Your task to perform on an android device: toggle airplane mode Image 0: 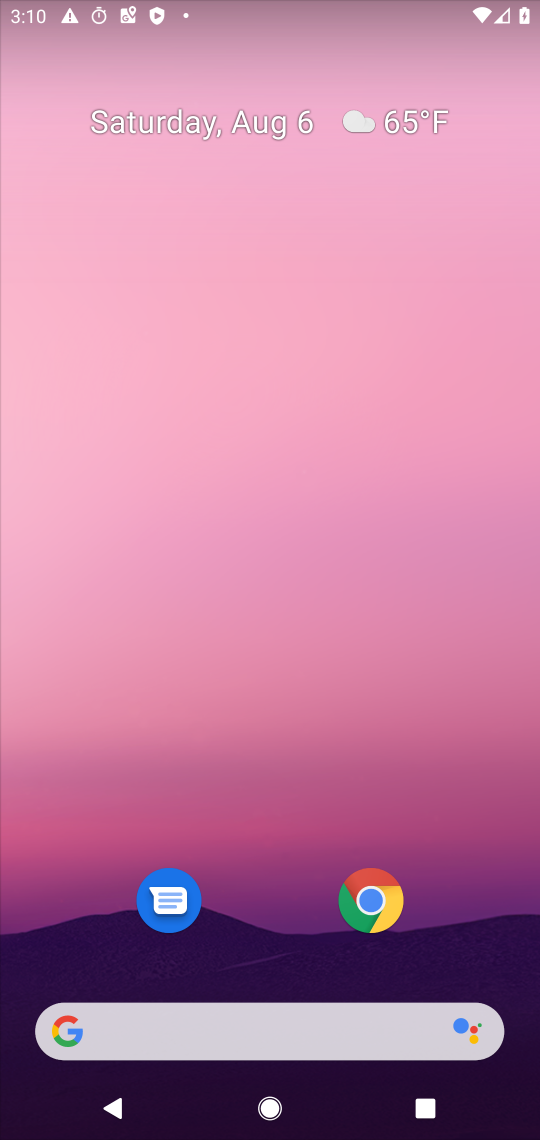
Step 0: press home button
Your task to perform on an android device: toggle airplane mode Image 1: 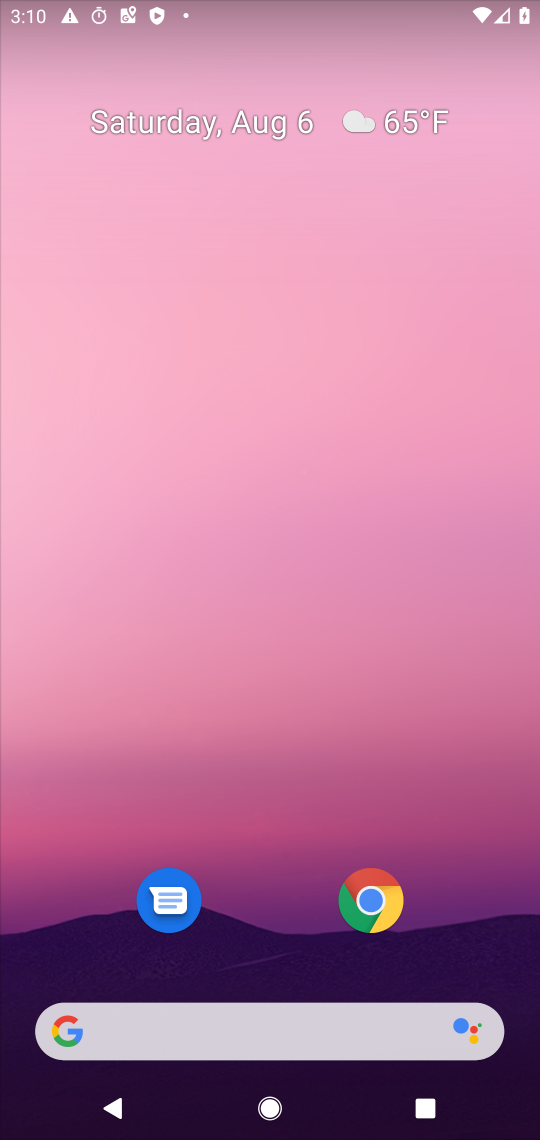
Step 1: drag from (249, 903) to (230, 300)
Your task to perform on an android device: toggle airplane mode Image 2: 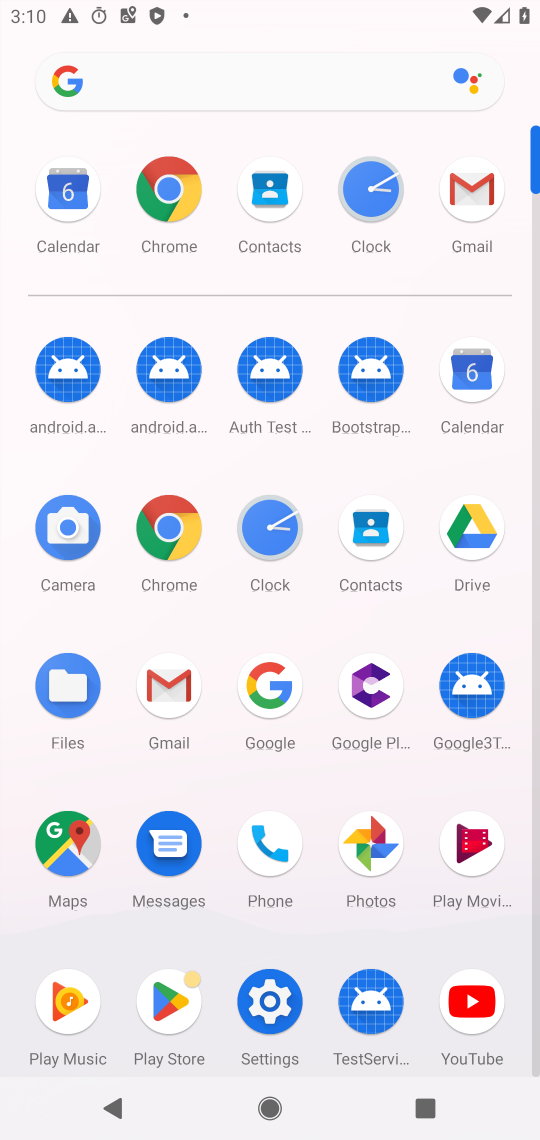
Step 2: click (264, 1009)
Your task to perform on an android device: toggle airplane mode Image 3: 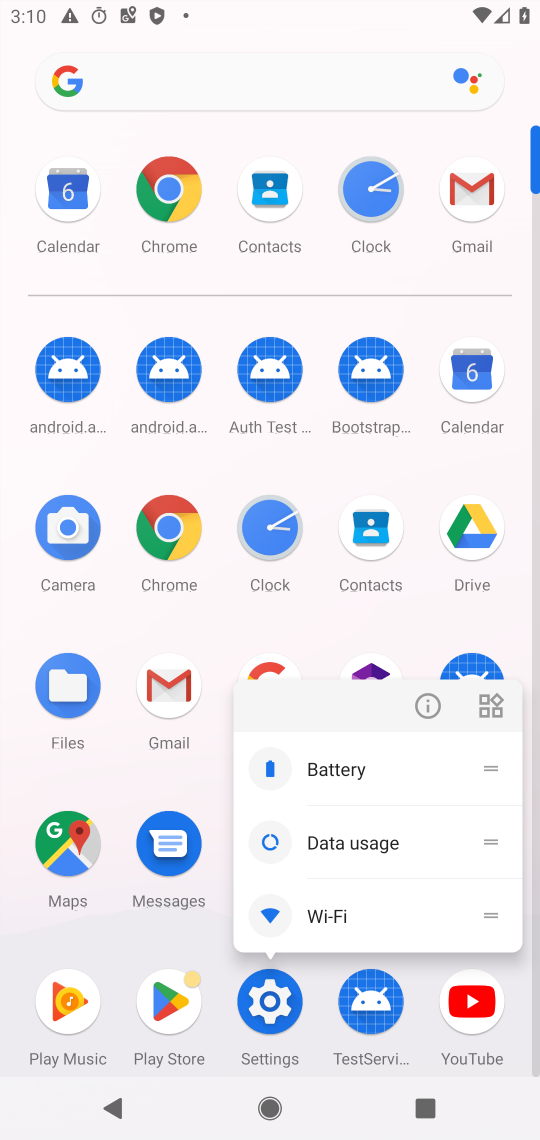
Step 3: click (274, 997)
Your task to perform on an android device: toggle airplane mode Image 4: 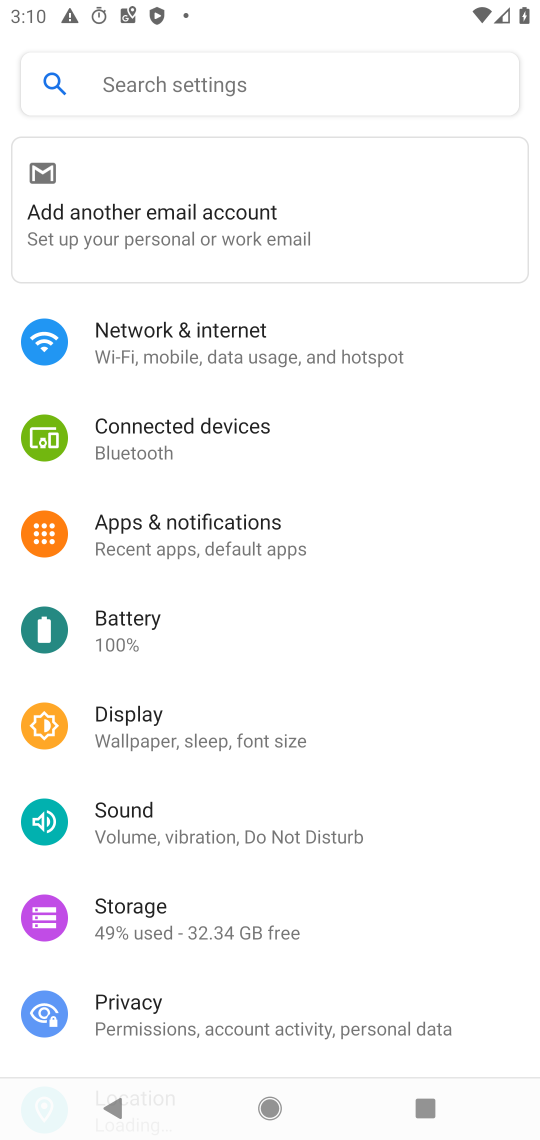
Step 4: click (209, 345)
Your task to perform on an android device: toggle airplane mode Image 5: 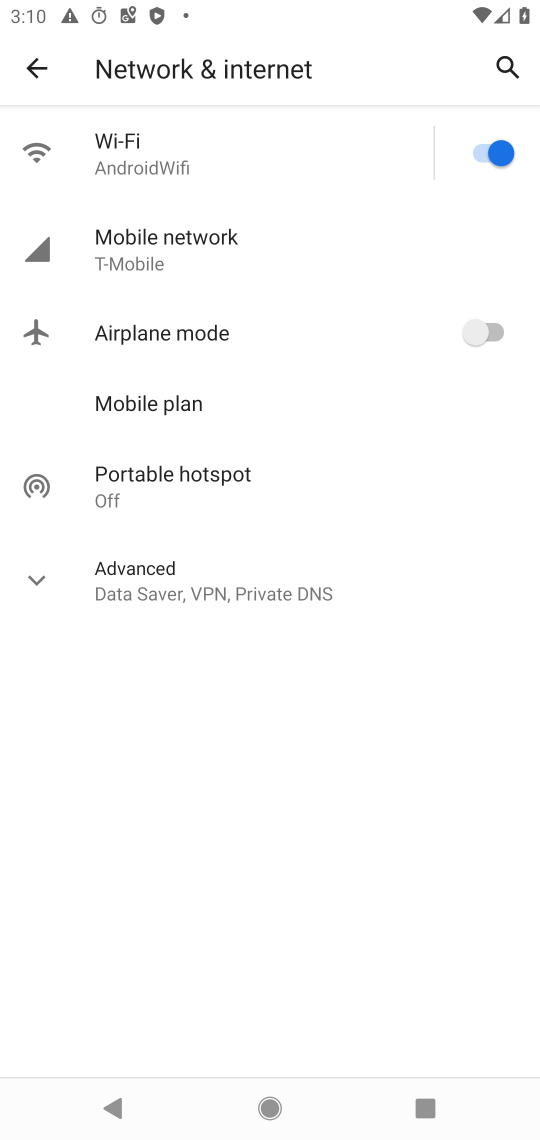
Step 5: click (481, 331)
Your task to perform on an android device: toggle airplane mode Image 6: 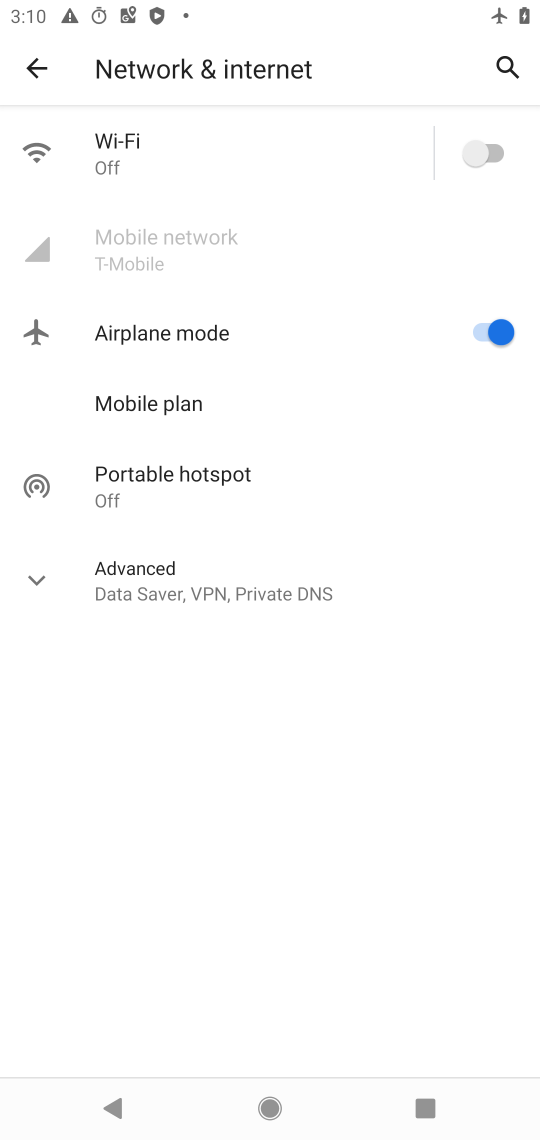
Step 6: task complete